Your task to perform on an android device: Is it going to rain this weekend? Image 0: 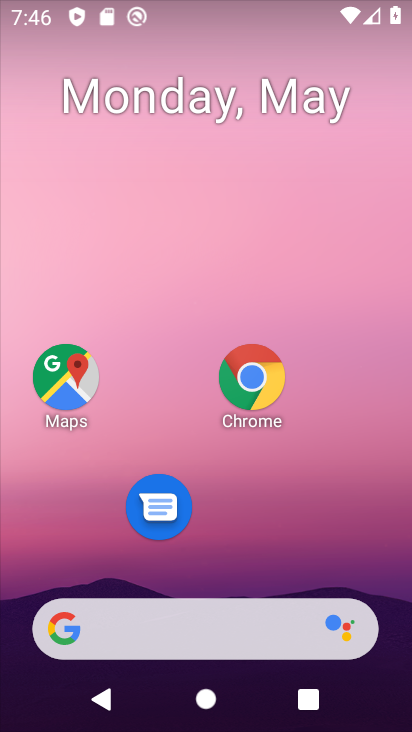
Step 0: drag from (298, 325) to (410, 313)
Your task to perform on an android device: Is it going to rain this weekend? Image 1: 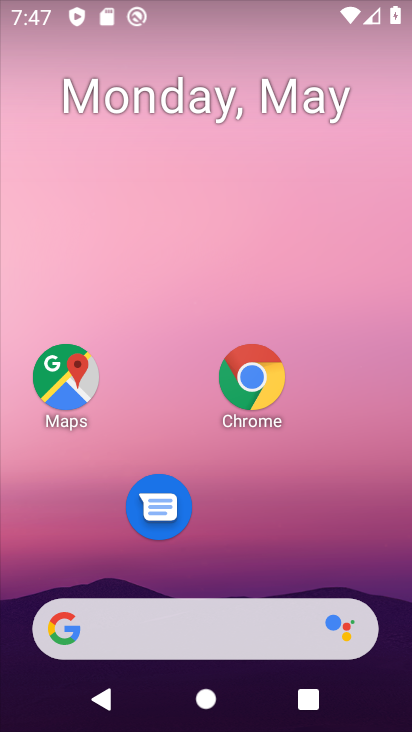
Step 1: drag from (139, 291) to (406, 371)
Your task to perform on an android device: Is it going to rain this weekend? Image 2: 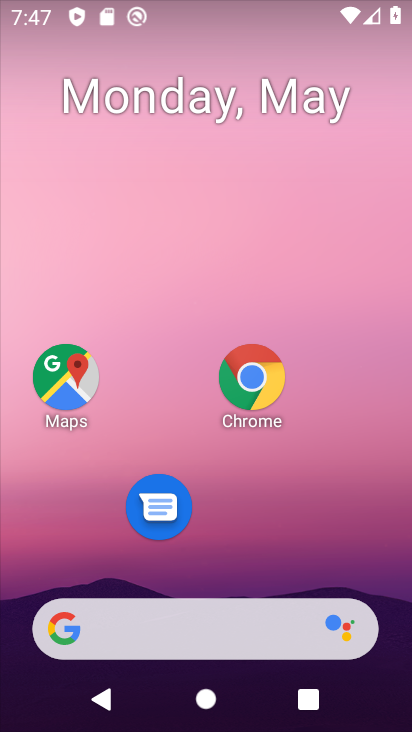
Step 2: drag from (40, 251) to (383, 385)
Your task to perform on an android device: Is it going to rain this weekend? Image 3: 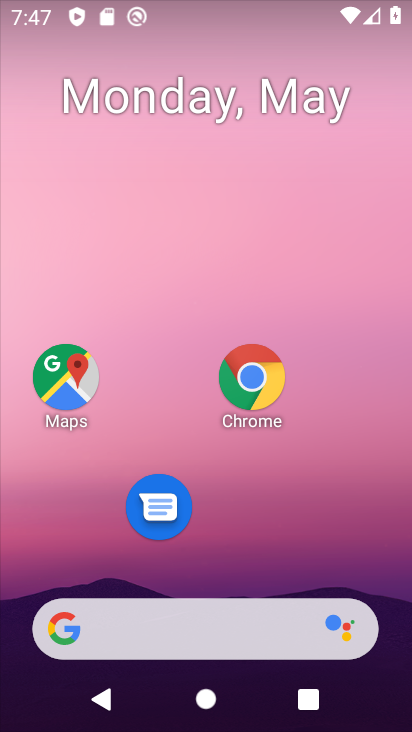
Step 3: drag from (170, 328) to (368, 485)
Your task to perform on an android device: Is it going to rain this weekend? Image 4: 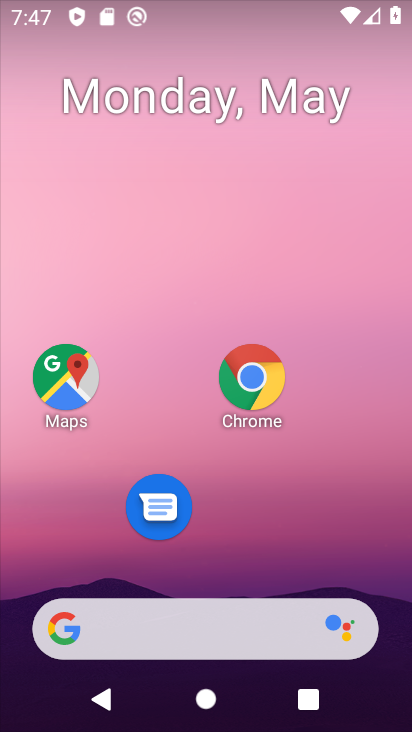
Step 4: click (380, 360)
Your task to perform on an android device: Is it going to rain this weekend? Image 5: 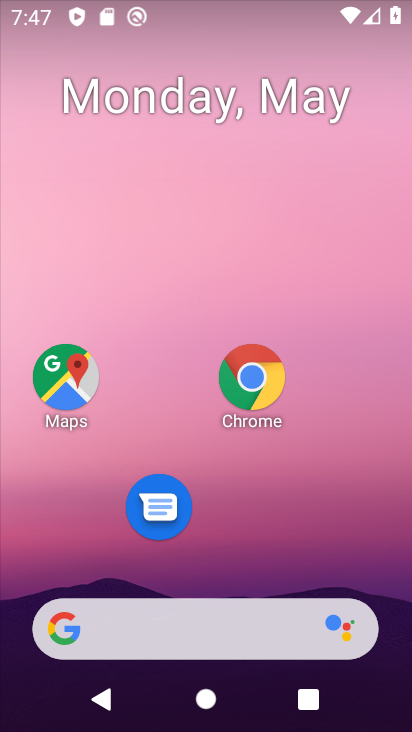
Step 5: drag from (188, 277) to (366, 304)
Your task to perform on an android device: Is it going to rain this weekend? Image 6: 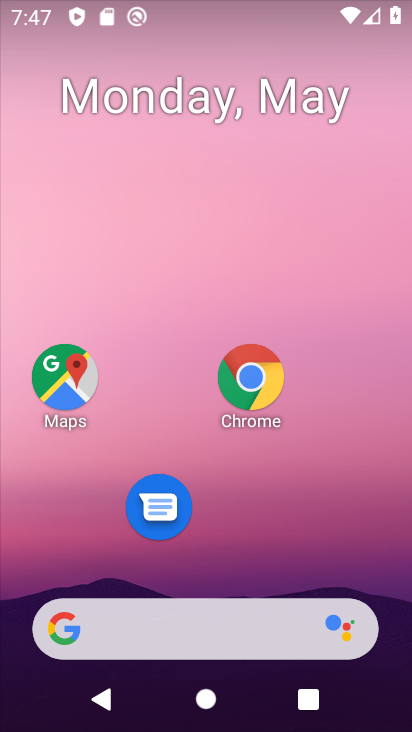
Step 6: drag from (21, 208) to (406, 359)
Your task to perform on an android device: Is it going to rain this weekend? Image 7: 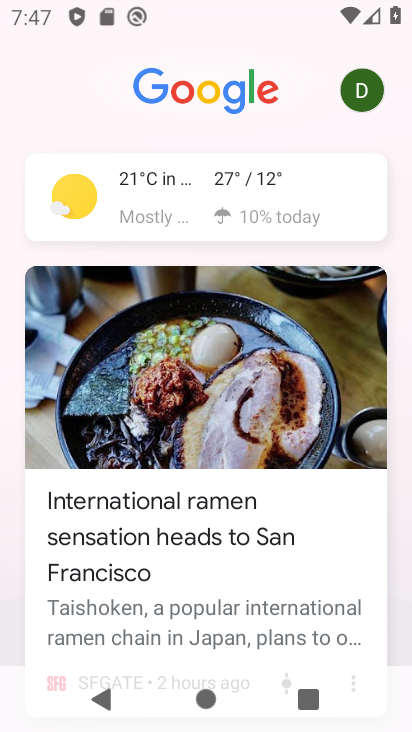
Step 7: click (159, 198)
Your task to perform on an android device: Is it going to rain this weekend? Image 8: 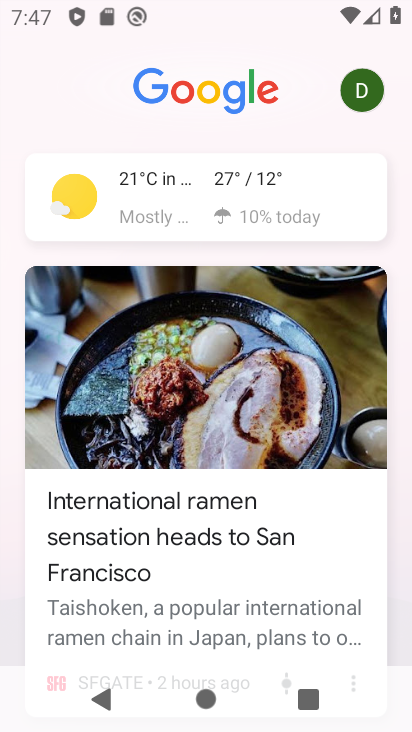
Step 8: click (163, 195)
Your task to perform on an android device: Is it going to rain this weekend? Image 9: 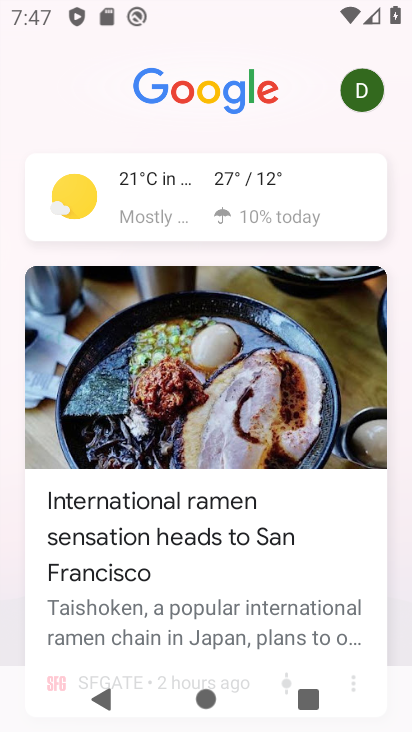
Step 9: click (165, 194)
Your task to perform on an android device: Is it going to rain this weekend? Image 10: 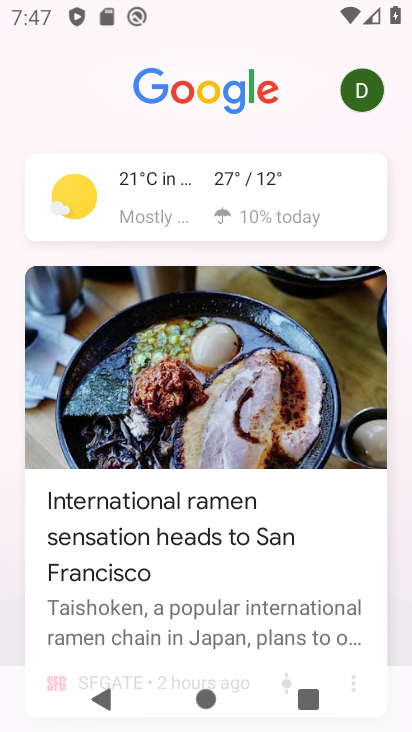
Step 10: click (172, 192)
Your task to perform on an android device: Is it going to rain this weekend? Image 11: 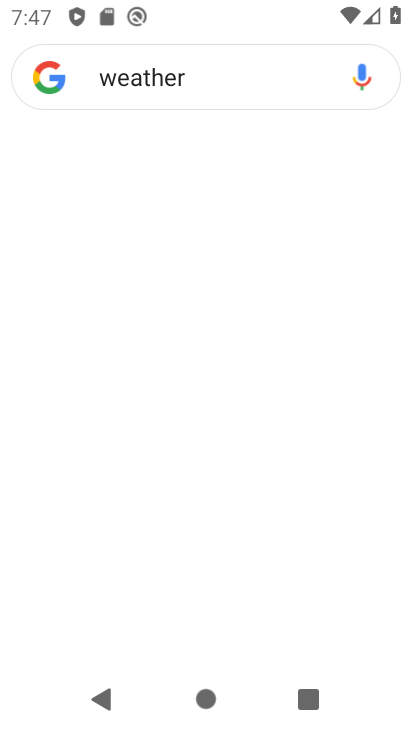
Step 11: click (174, 192)
Your task to perform on an android device: Is it going to rain this weekend? Image 12: 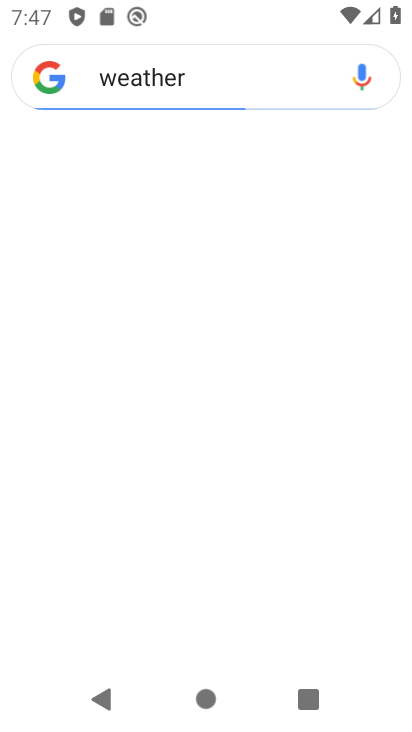
Step 12: click (176, 192)
Your task to perform on an android device: Is it going to rain this weekend? Image 13: 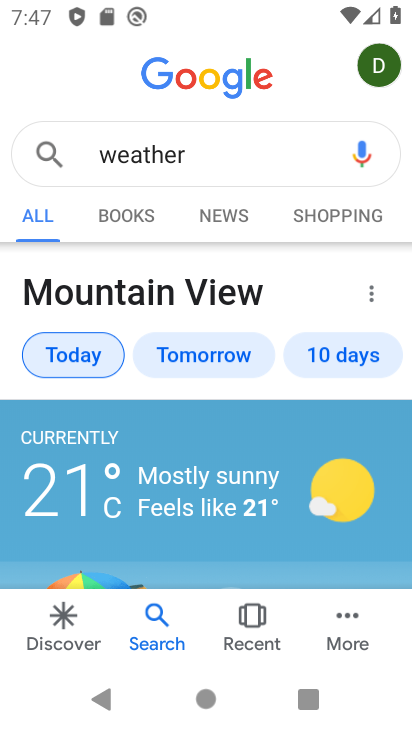
Step 13: click (193, 349)
Your task to perform on an android device: Is it going to rain this weekend? Image 14: 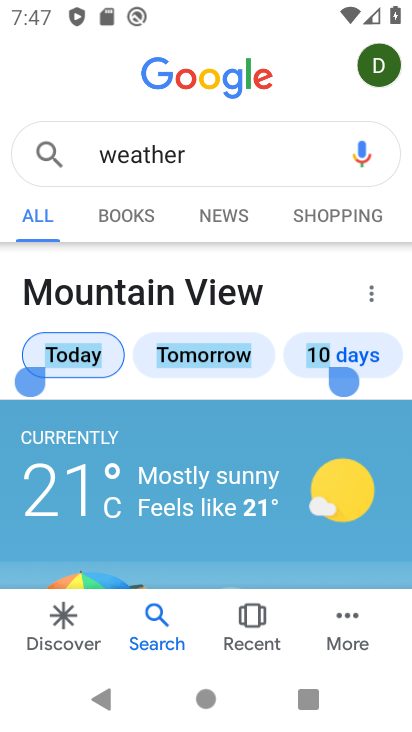
Step 14: click (75, 351)
Your task to perform on an android device: Is it going to rain this weekend? Image 15: 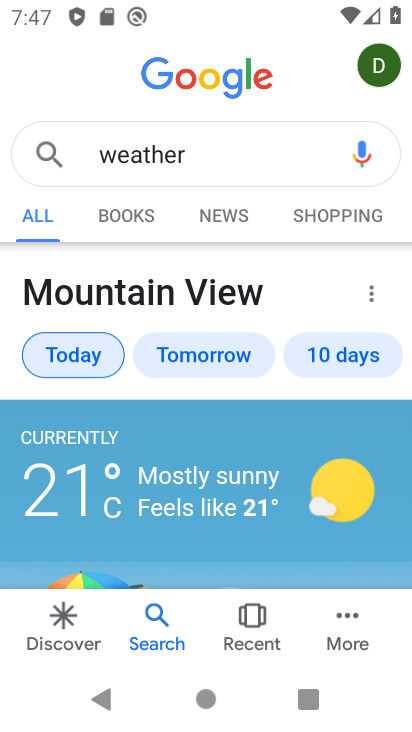
Step 15: task complete